Your task to perform on an android device: Is it going to rain tomorrow? Image 0: 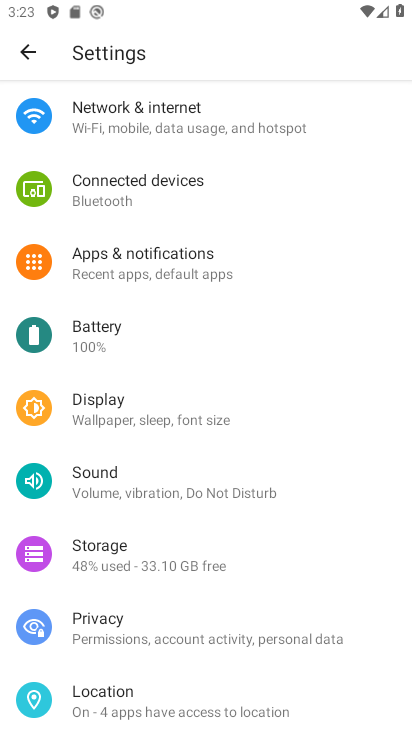
Step 0: press home button
Your task to perform on an android device: Is it going to rain tomorrow? Image 1: 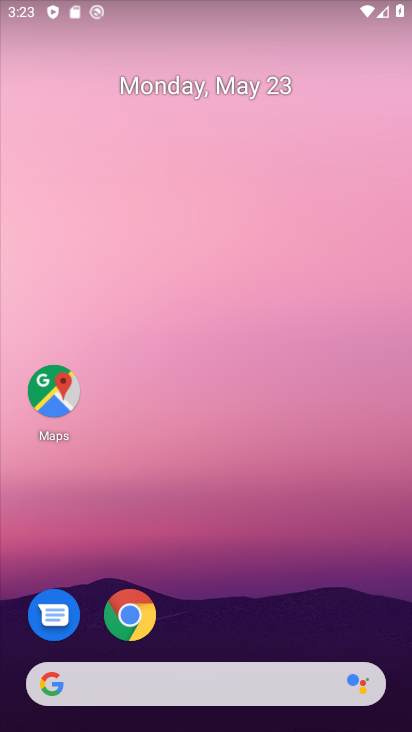
Step 1: click (226, 677)
Your task to perform on an android device: Is it going to rain tomorrow? Image 2: 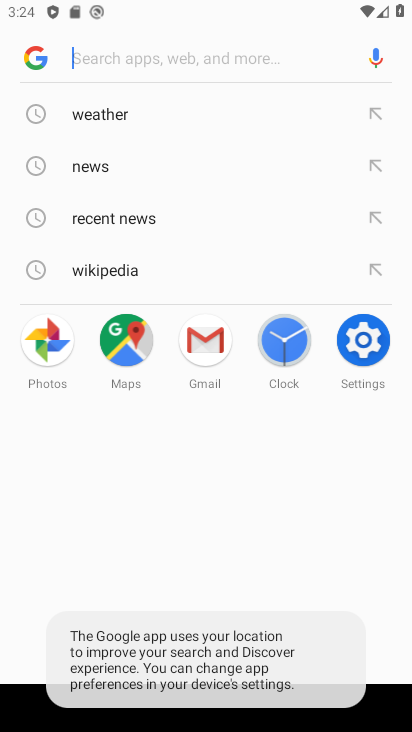
Step 2: click (130, 103)
Your task to perform on an android device: Is it going to rain tomorrow? Image 3: 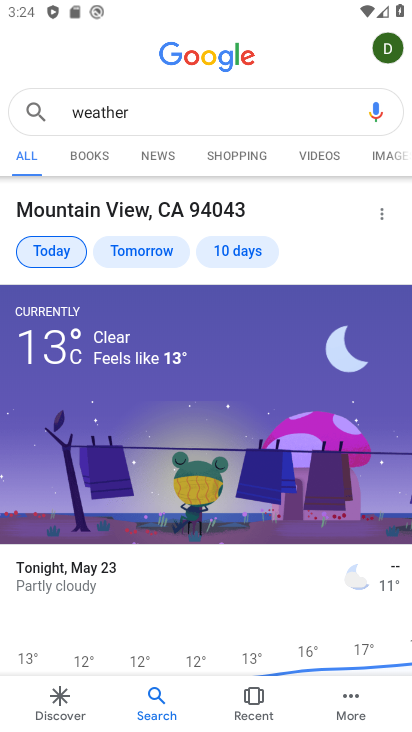
Step 3: click (114, 255)
Your task to perform on an android device: Is it going to rain tomorrow? Image 4: 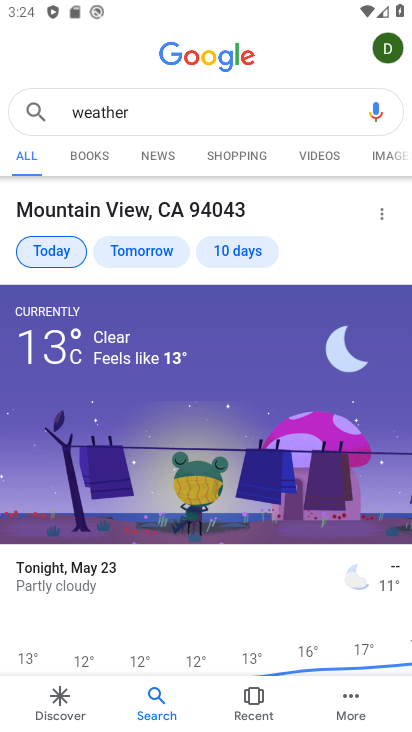
Step 4: click (155, 250)
Your task to perform on an android device: Is it going to rain tomorrow? Image 5: 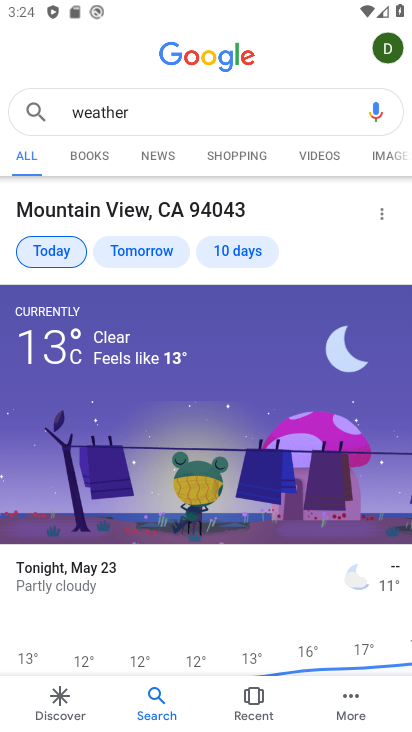
Step 5: click (155, 250)
Your task to perform on an android device: Is it going to rain tomorrow? Image 6: 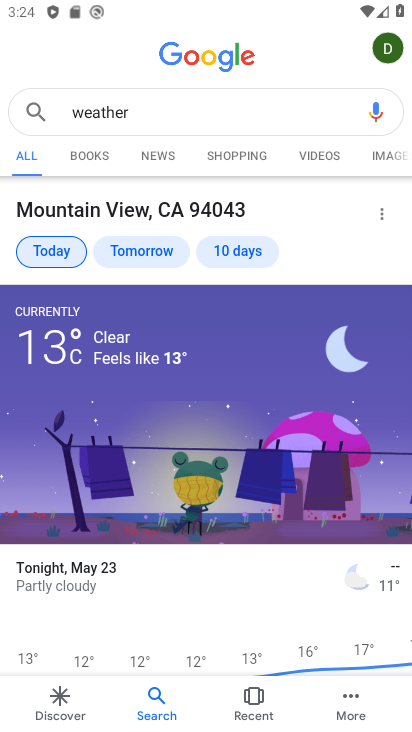
Step 6: click (155, 250)
Your task to perform on an android device: Is it going to rain tomorrow? Image 7: 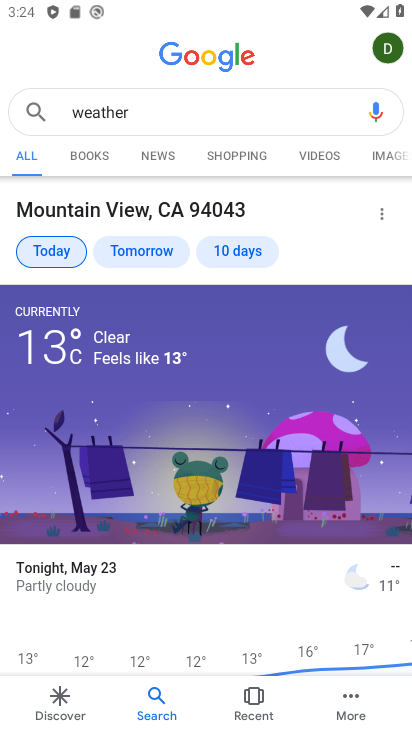
Step 7: drag from (233, 504) to (225, 332)
Your task to perform on an android device: Is it going to rain tomorrow? Image 8: 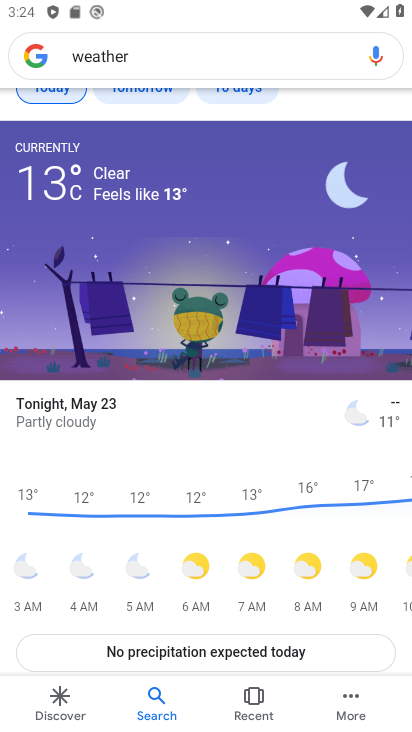
Step 8: drag from (210, 232) to (169, 436)
Your task to perform on an android device: Is it going to rain tomorrow? Image 9: 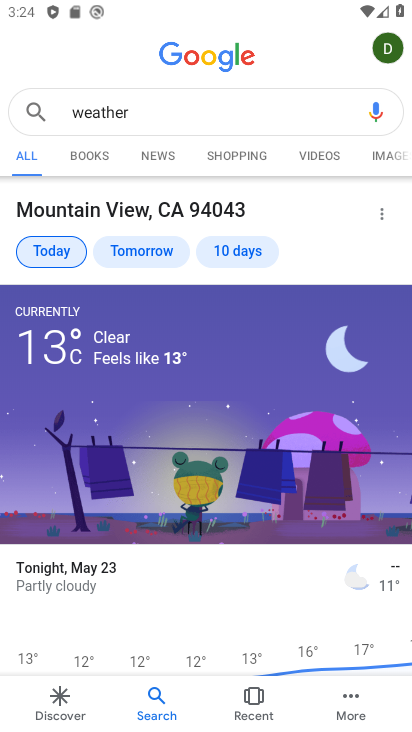
Step 9: click (143, 258)
Your task to perform on an android device: Is it going to rain tomorrow? Image 10: 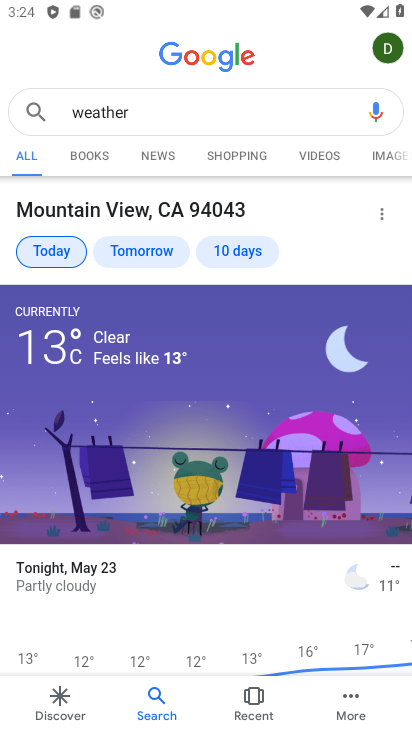
Step 10: task complete